Your task to perform on an android device: Open settings Image 0: 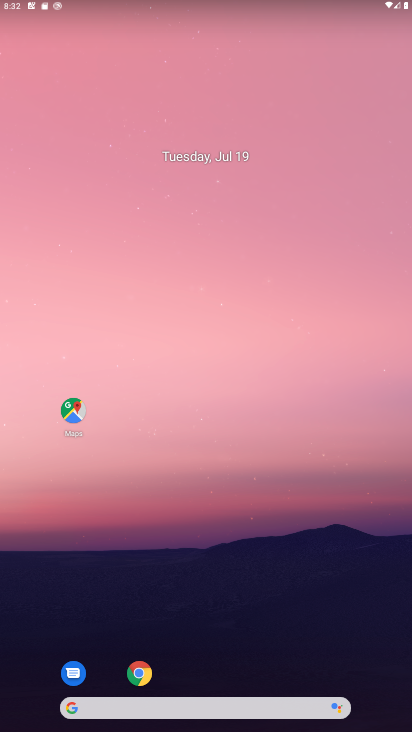
Step 0: drag from (346, 633) to (308, 287)
Your task to perform on an android device: Open settings Image 1: 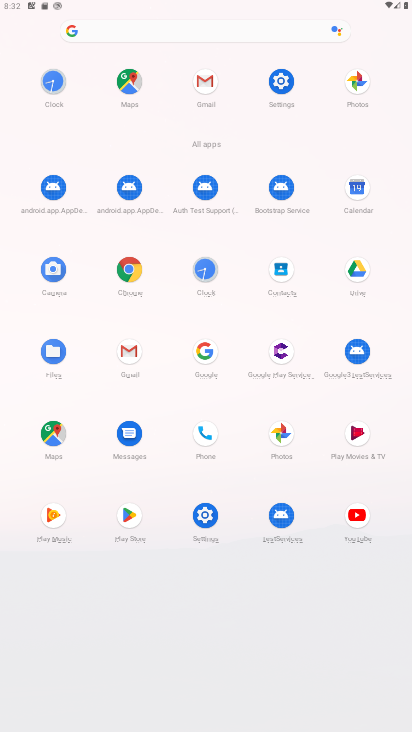
Step 1: click (203, 516)
Your task to perform on an android device: Open settings Image 2: 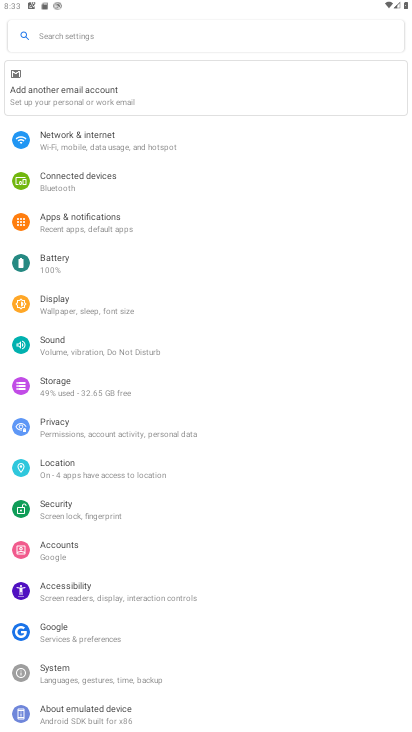
Step 2: task complete